Your task to perform on an android device: turn off location history Image 0: 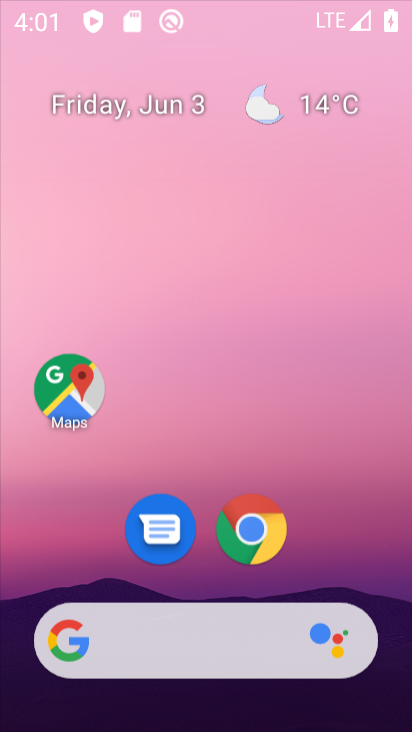
Step 0: press home button
Your task to perform on an android device: turn off location history Image 1: 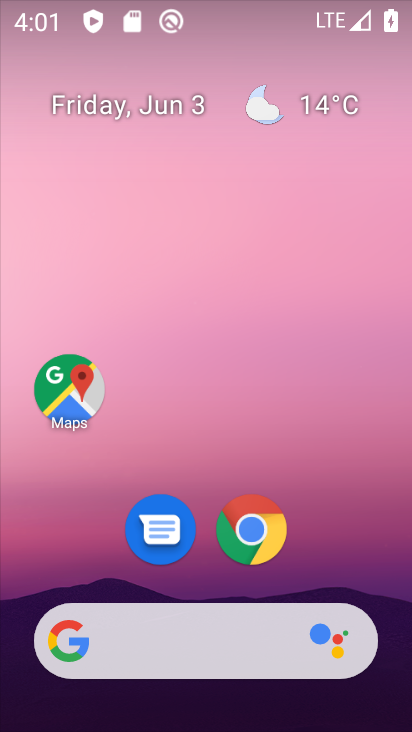
Step 1: drag from (208, 575) to (85, 2)
Your task to perform on an android device: turn off location history Image 2: 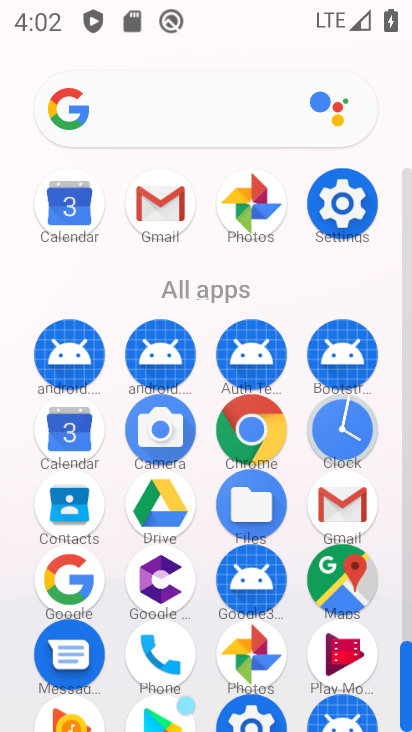
Step 2: click (336, 185)
Your task to perform on an android device: turn off location history Image 3: 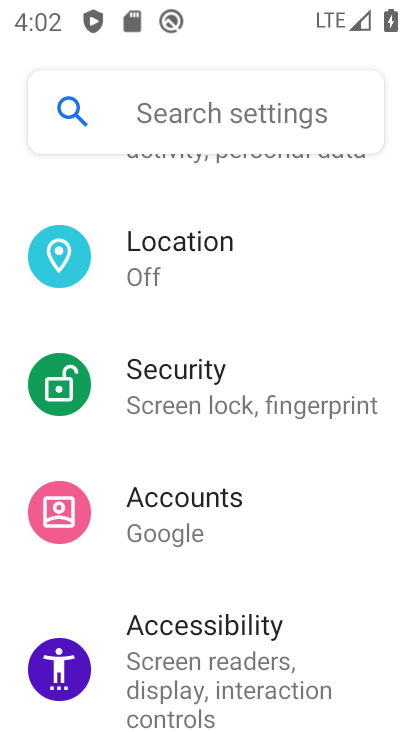
Step 3: click (220, 252)
Your task to perform on an android device: turn off location history Image 4: 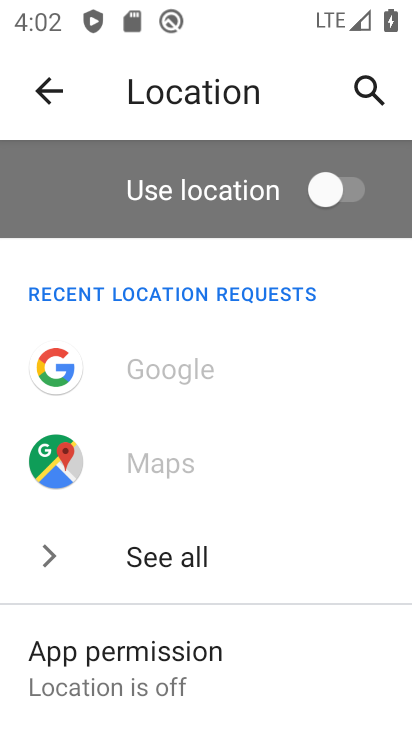
Step 4: drag from (241, 641) to (264, 177)
Your task to perform on an android device: turn off location history Image 5: 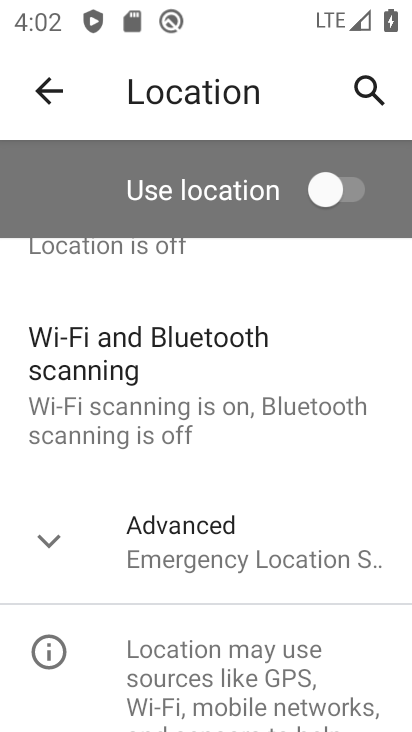
Step 5: click (109, 544)
Your task to perform on an android device: turn off location history Image 6: 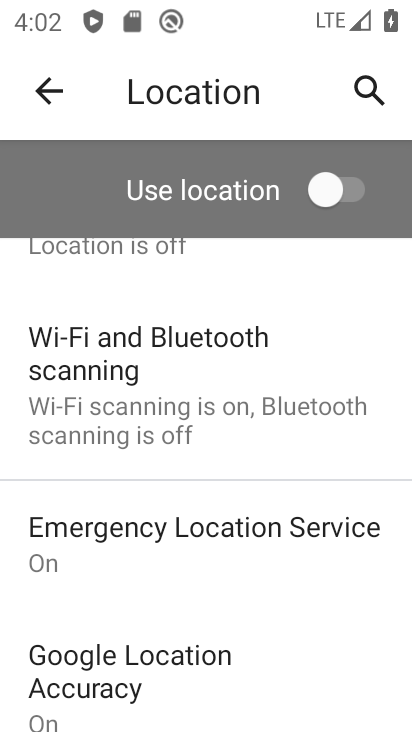
Step 6: drag from (214, 587) to (222, 335)
Your task to perform on an android device: turn off location history Image 7: 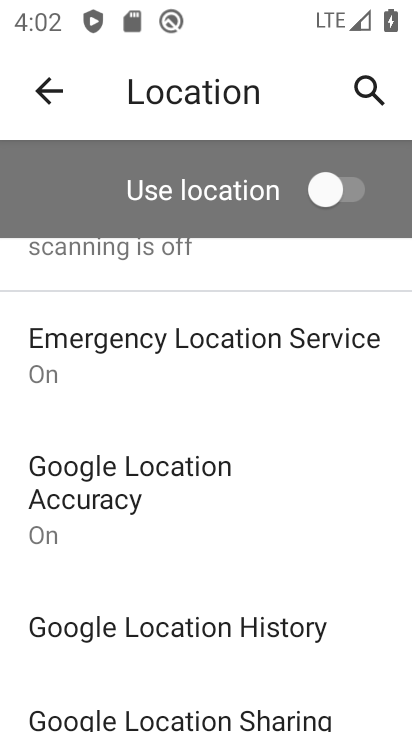
Step 7: click (230, 635)
Your task to perform on an android device: turn off location history Image 8: 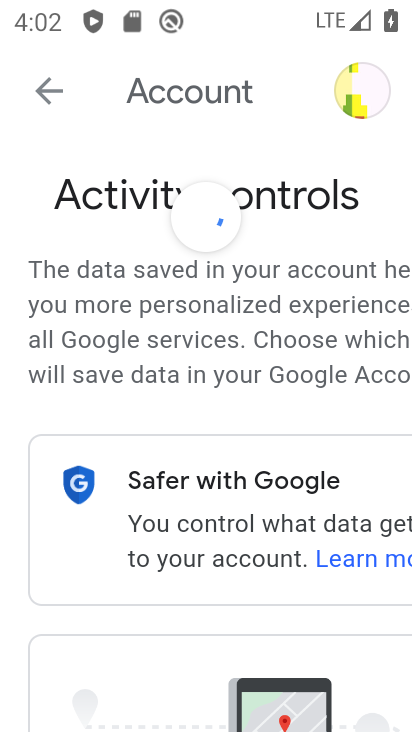
Step 8: drag from (241, 654) to (236, 243)
Your task to perform on an android device: turn off location history Image 9: 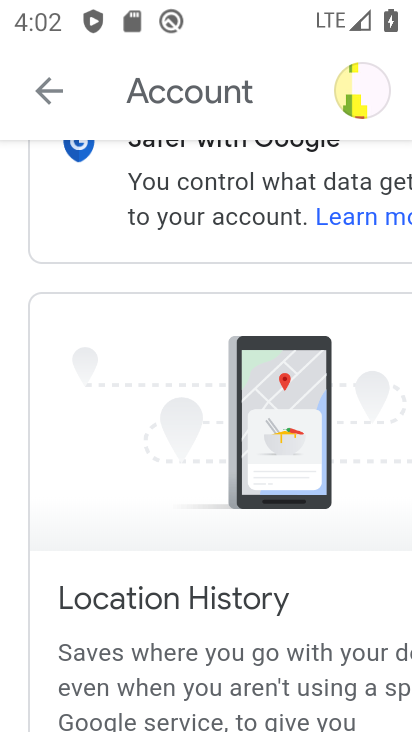
Step 9: drag from (201, 603) to (220, 137)
Your task to perform on an android device: turn off location history Image 10: 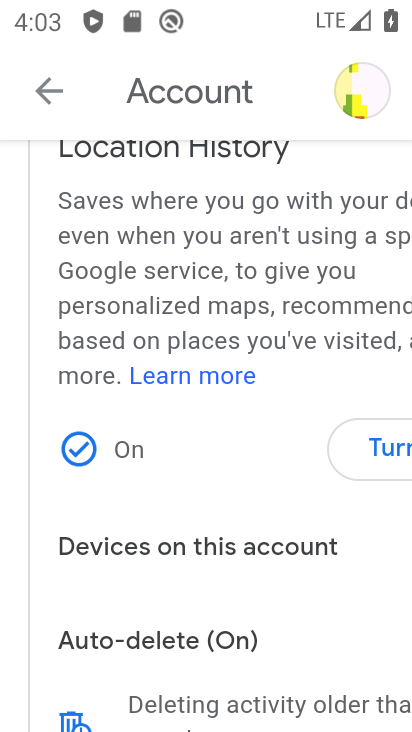
Step 10: click (368, 440)
Your task to perform on an android device: turn off location history Image 11: 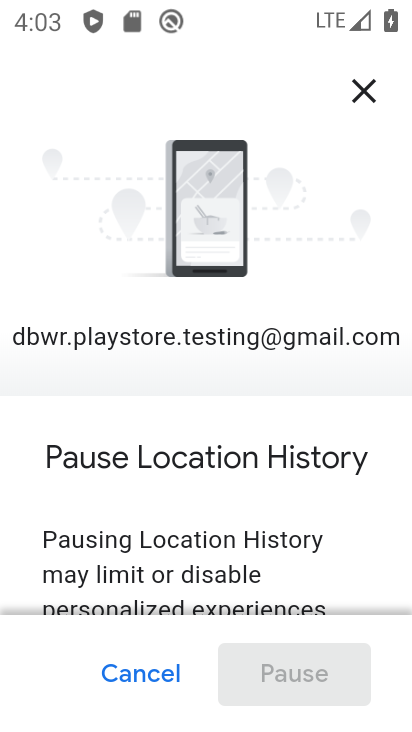
Step 11: click (268, 570)
Your task to perform on an android device: turn off location history Image 12: 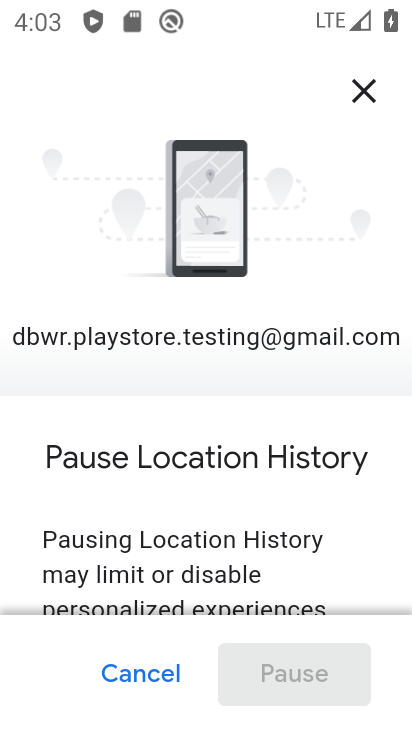
Step 12: drag from (266, 522) to (287, 47)
Your task to perform on an android device: turn off location history Image 13: 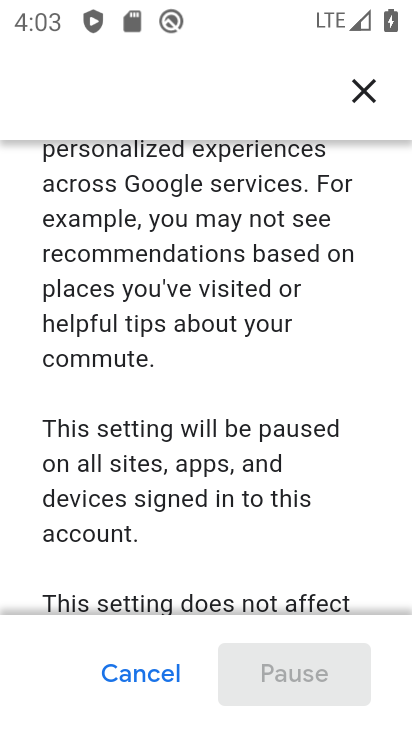
Step 13: drag from (249, 527) to (255, 40)
Your task to perform on an android device: turn off location history Image 14: 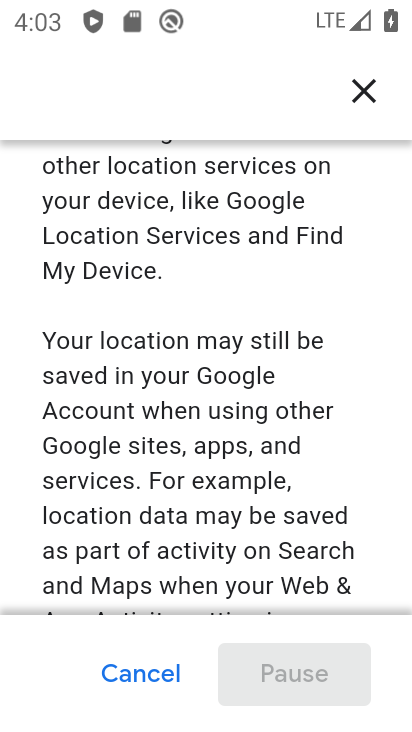
Step 14: drag from (248, 541) to (280, 84)
Your task to perform on an android device: turn off location history Image 15: 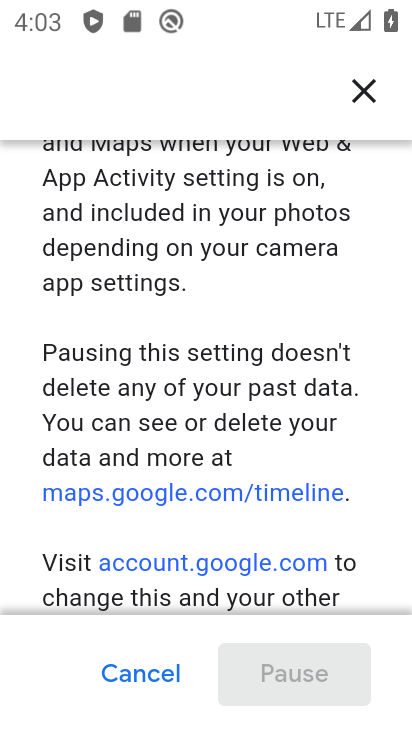
Step 15: drag from (257, 581) to (276, 138)
Your task to perform on an android device: turn off location history Image 16: 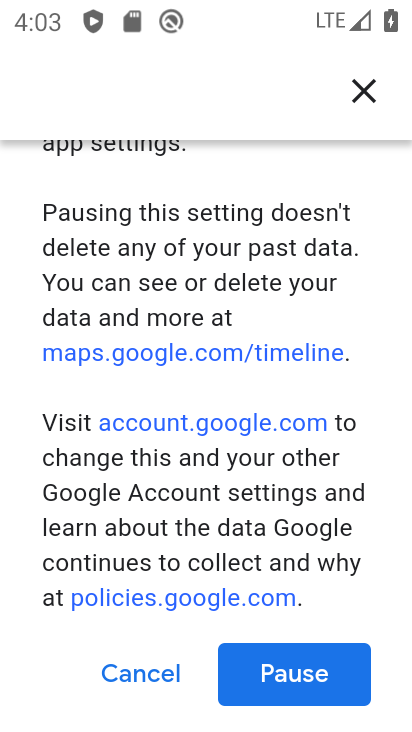
Step 16: drag from (270, 590) to (280, 350)
Your task to perform on an android device: turn off location history Image 17: 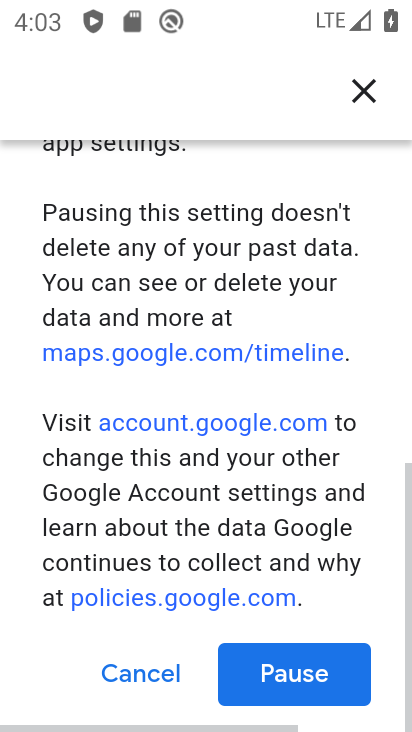
Step 17: click (287, 665)
Your task to perform on an android device: turn off location history Image 18: 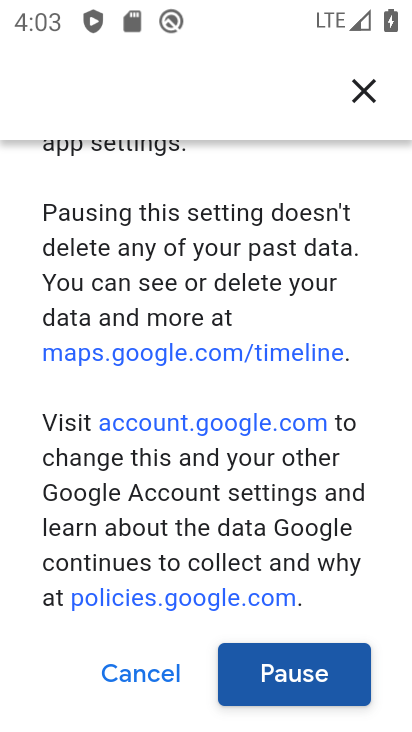
Step 18: click (300, 672)
Your task to perform on an android device: turn off location history Image 19: 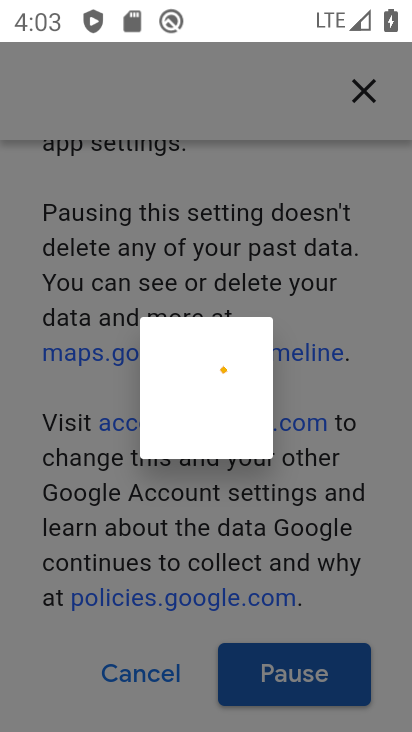
Step 19: click (300, 669)
Your task to perform on an android device: turn off location history Image 20: 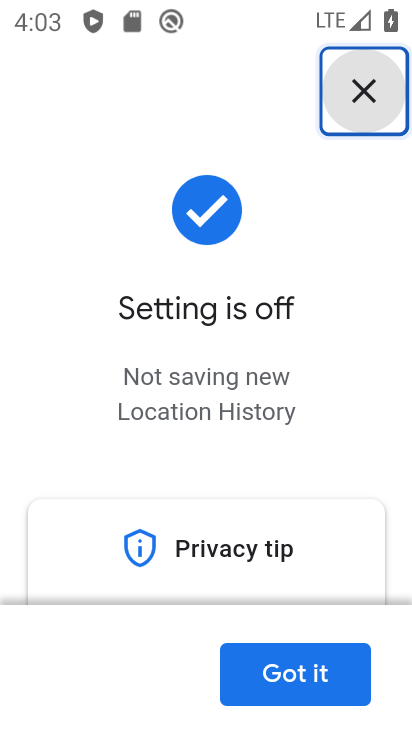
Step 20: task complete